Your task to perform on an android device: Open battery settings Image 0: 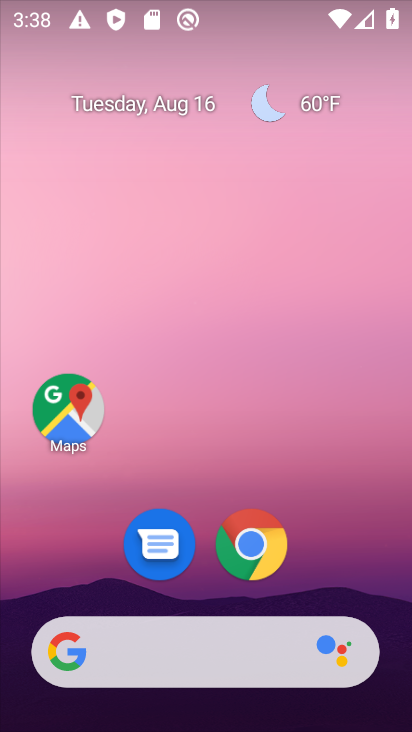
Step 0: drag from (366, 577) to (141, 4)
Your task to perform on an android device: Open battery settings Image 1: 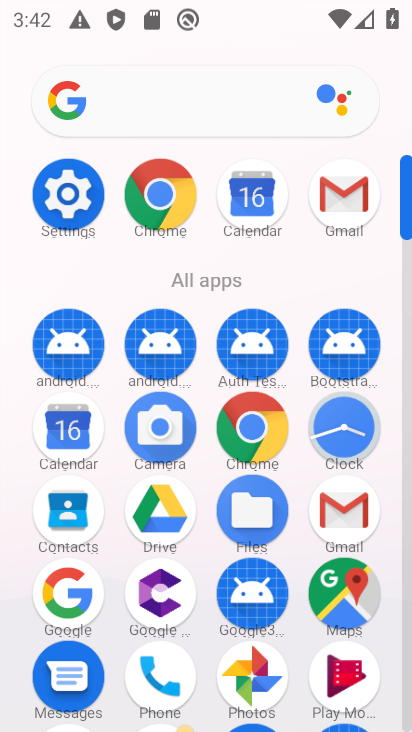
Step 1: click (50, 206)
Your task to perform on an android device: Open battery settings Image 2: 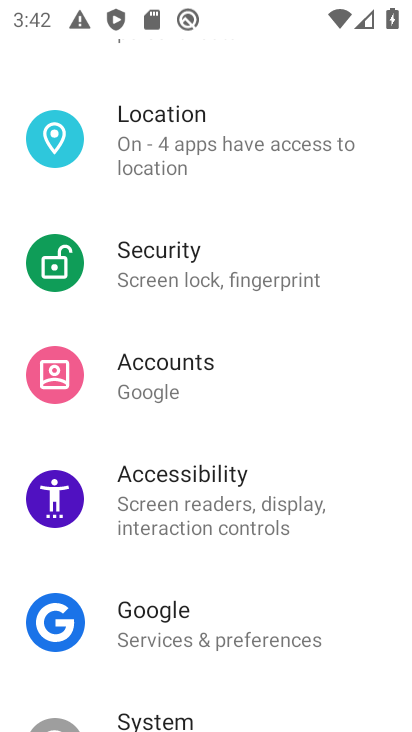
Step 2: drag from (149, 227) to (235, 721)
Your task to perform on an android device: Open battery settings Image 3: 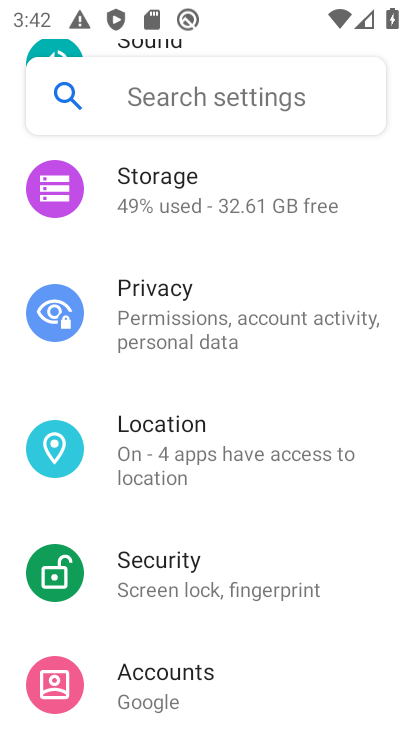
Step 3: drag from (160, 211) to (209, 726)
Your task to perform on an android device: Open battery settings Image 4: 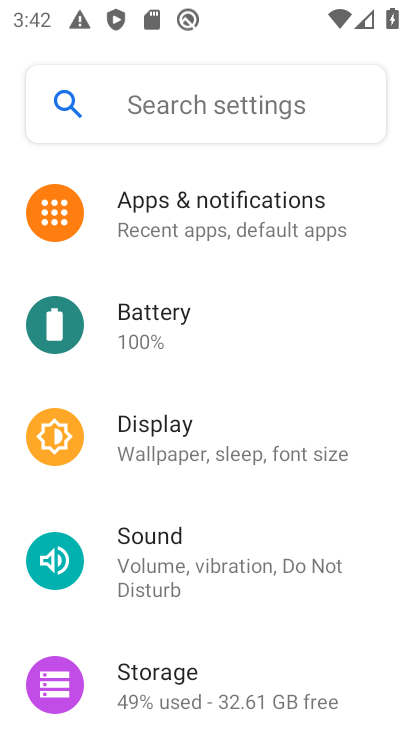
Step 4: click (174, 346)
Your task to perform on an android device: Open battery settings Image 5: 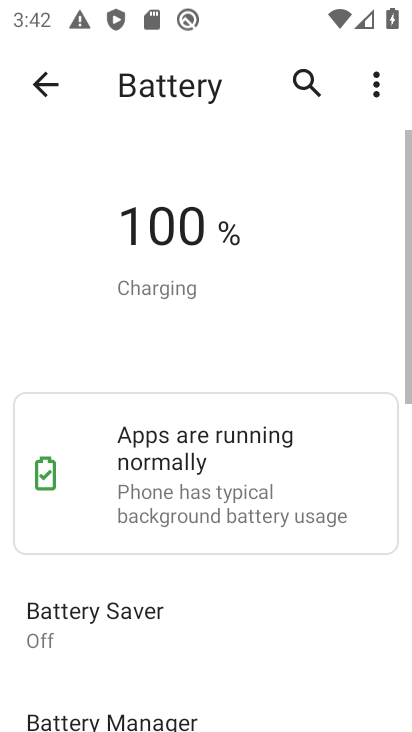
Step 5: task complete